Your task to perform on an android device: open app "Instagram" Image 0: 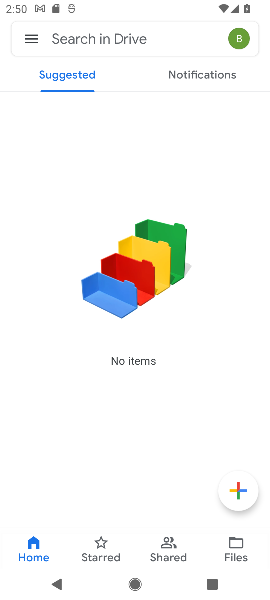
Step 0: press home button
Your task to perform on an android device: open app "Instagram" Image 1: 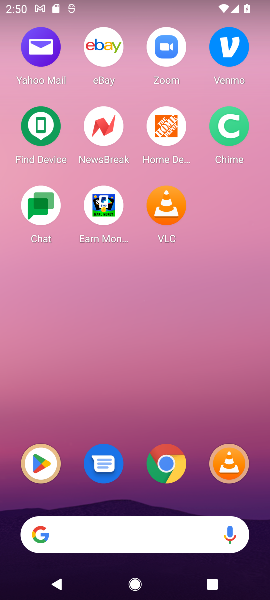
Step 1: click (50, 466)
Your task to perform on an android device: open app "Instagram" Image 2: 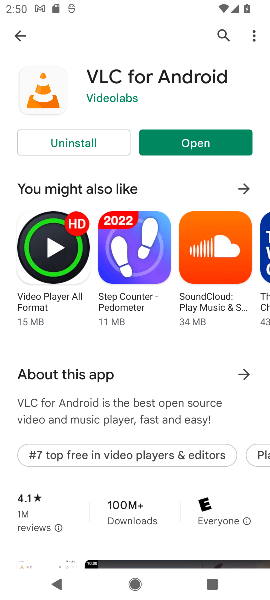
Step 2: click (221, 29)
Your task to perform on an android device: open app "Instagram" Image 3: 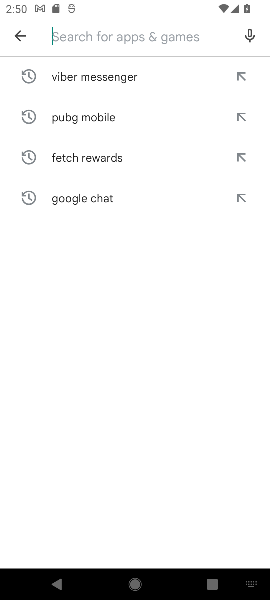
Step 3: type "Instagram"
Your task to perform on an android device: open app "Instagram" Image 4: 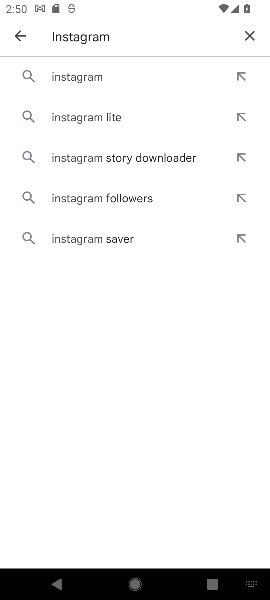
Step 4: click (131, 74)
Your task to perform on an android device: open app "Instagram" Image 5: 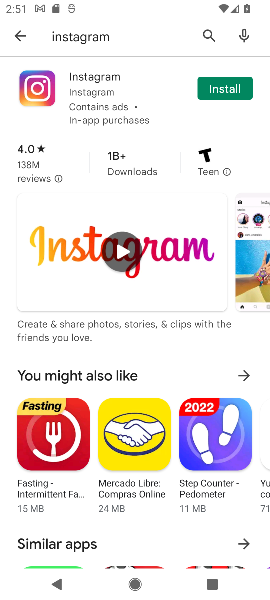
Step 5: task complete